Your task to perform on an android device: all mails in gmail Image 0: 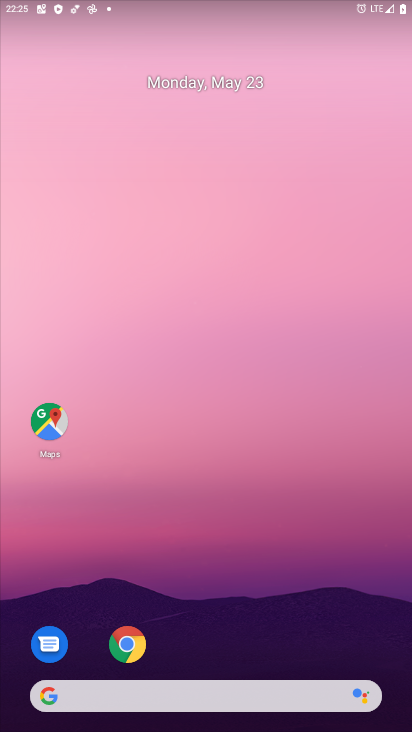
Step 0: drag from (303, 701) to (360, 130)
Your task to perform on an android device: all mails in gmail Image 1: 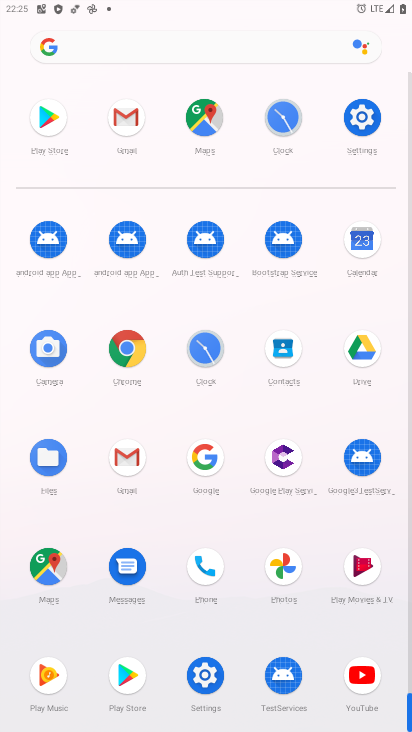
Step 1: click (124, 118)
Your task to perform on an android device: all mails in gmail Image 2: 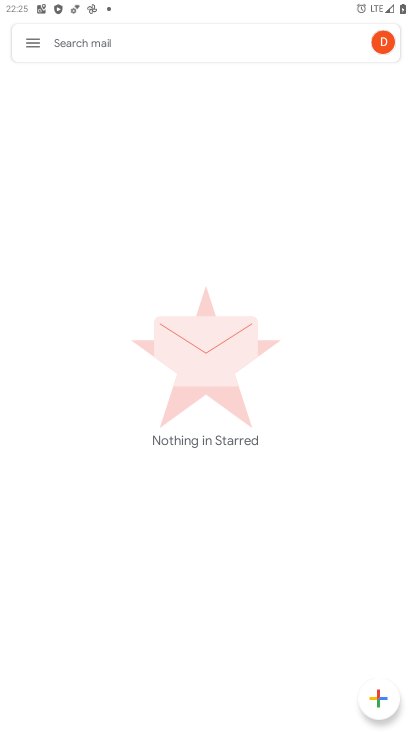
Step 2: click (36, 38)
Your task to perform on an android device: all mails in gmail Image 3: 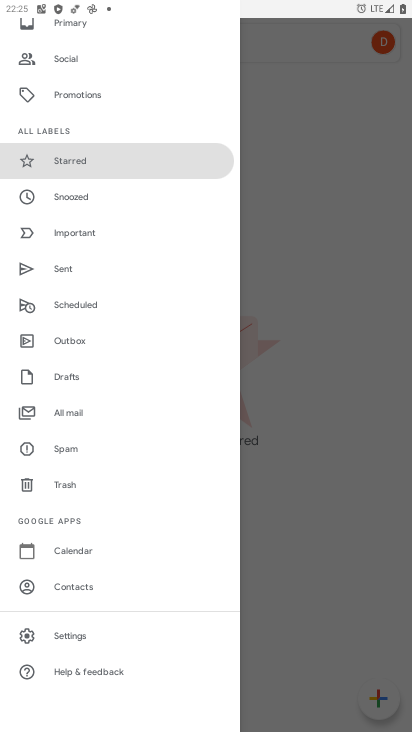
Step 3: click (105, 409)
Your task to perform on an android device: all mails in gmail Image 4: 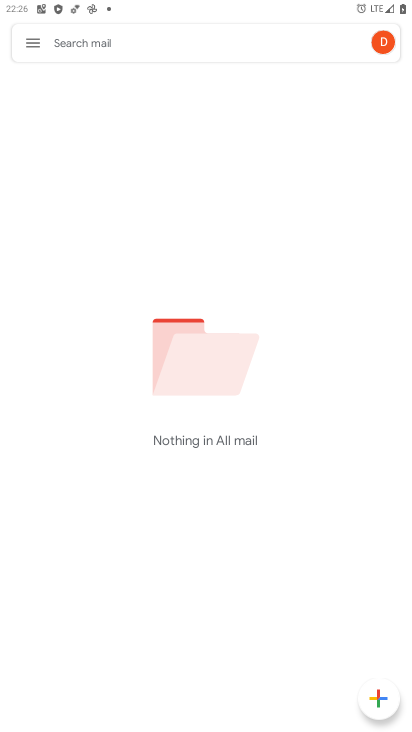
Step 4: click (33, 34)
Your task to perform on an android device: all mails in gmail Image 5: 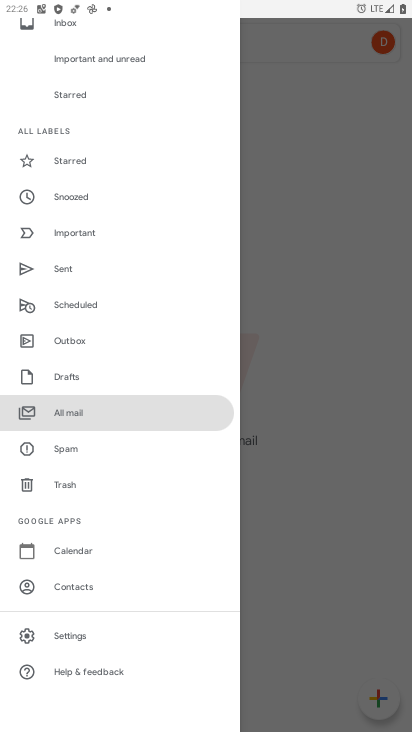
Step 5: click (101, 416)
Your task to perform on an android device: all mails in gmail Image 6: 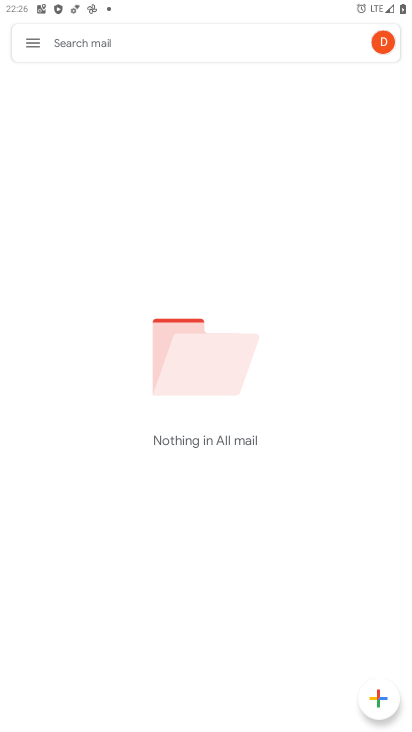
Step 6: task complete